Your task to perform on an android device: turn off airplane mode Image 0: 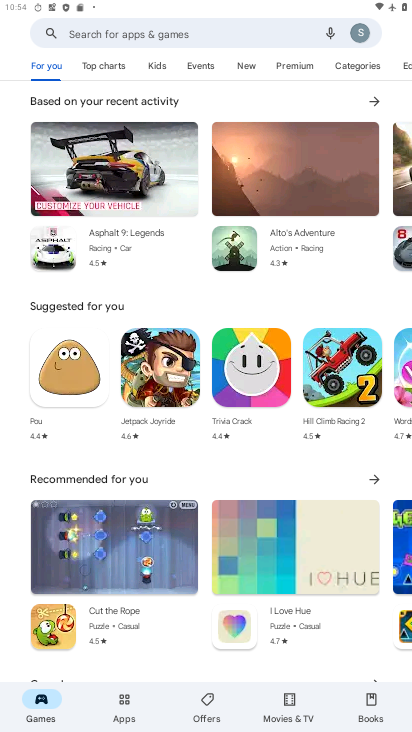
Step 0: press home button
Your task to perform on an android device: turn off airplane mode Image 1: 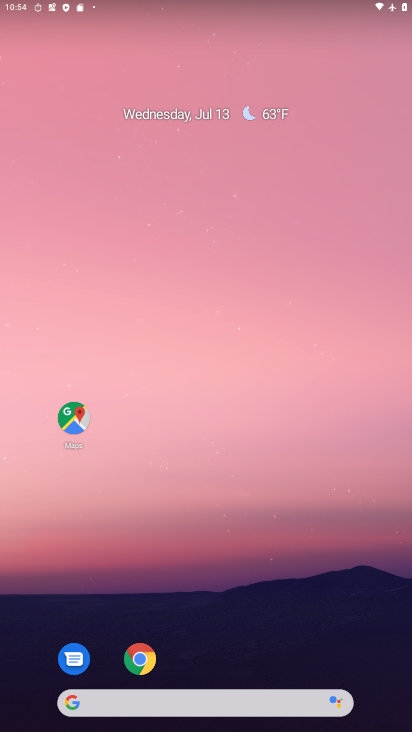
Step 1: drag from (311, 654) to (256, 169)
Your task to perform on an android device: turn off airplane mode Image 2: 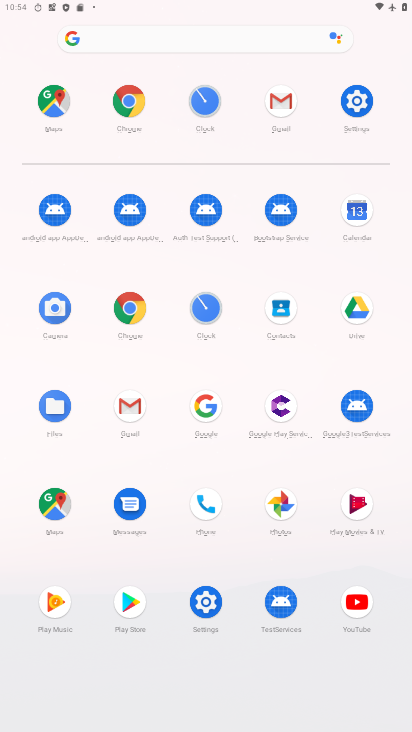
Step 2: click (357, 115)
Your task to perform on an android device: turn off airplane mode Image 3: 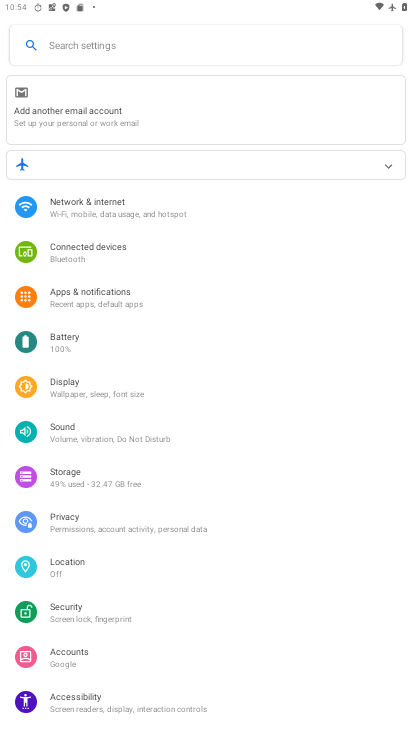
Step 3: click (78, 320)
Your task to perform on an android device: turn off airplane mode Image 4: 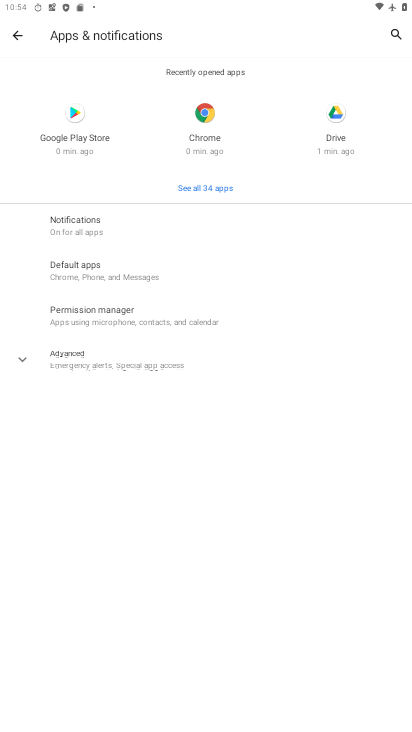
Step 4: click (28, 32)
Your task to perform on an android device: turn off airplane mode Image 5: 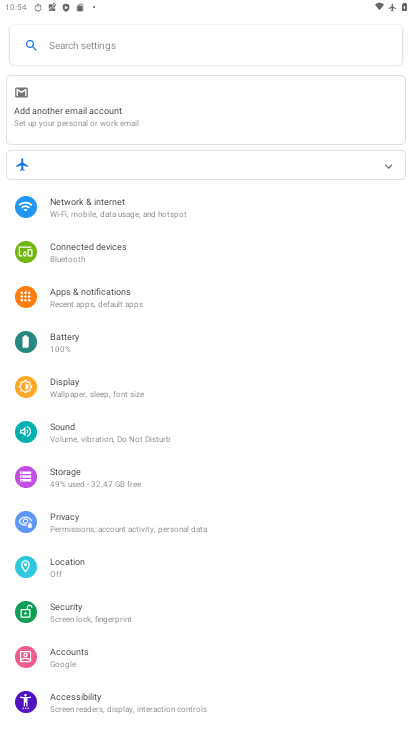
Step 5: click (114, 201)
Your task to perform on an android device: turn off airplane mode Image 6: 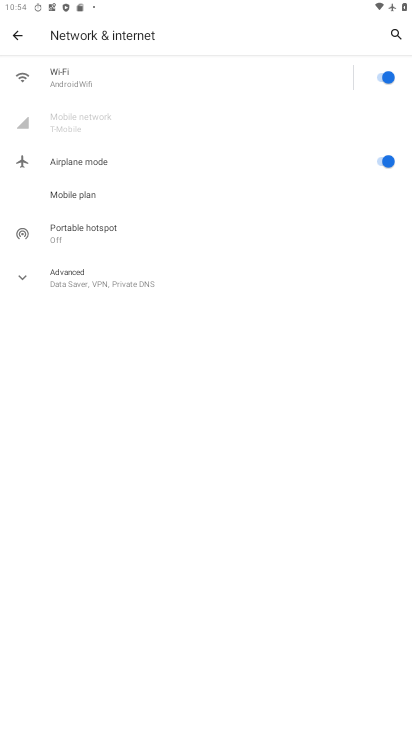
Step 6: click (379, 164)
Your task to perform on an android device: turn off airplane mode Image 7: 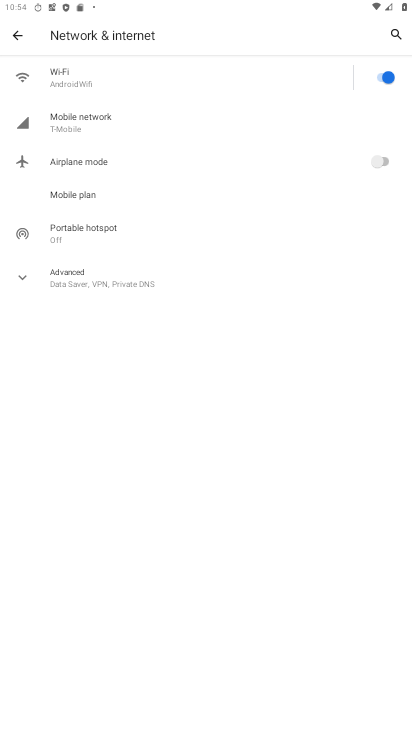
Step 7: task complete